Your task to perform on an android device: turn off airplane mode Image 0: 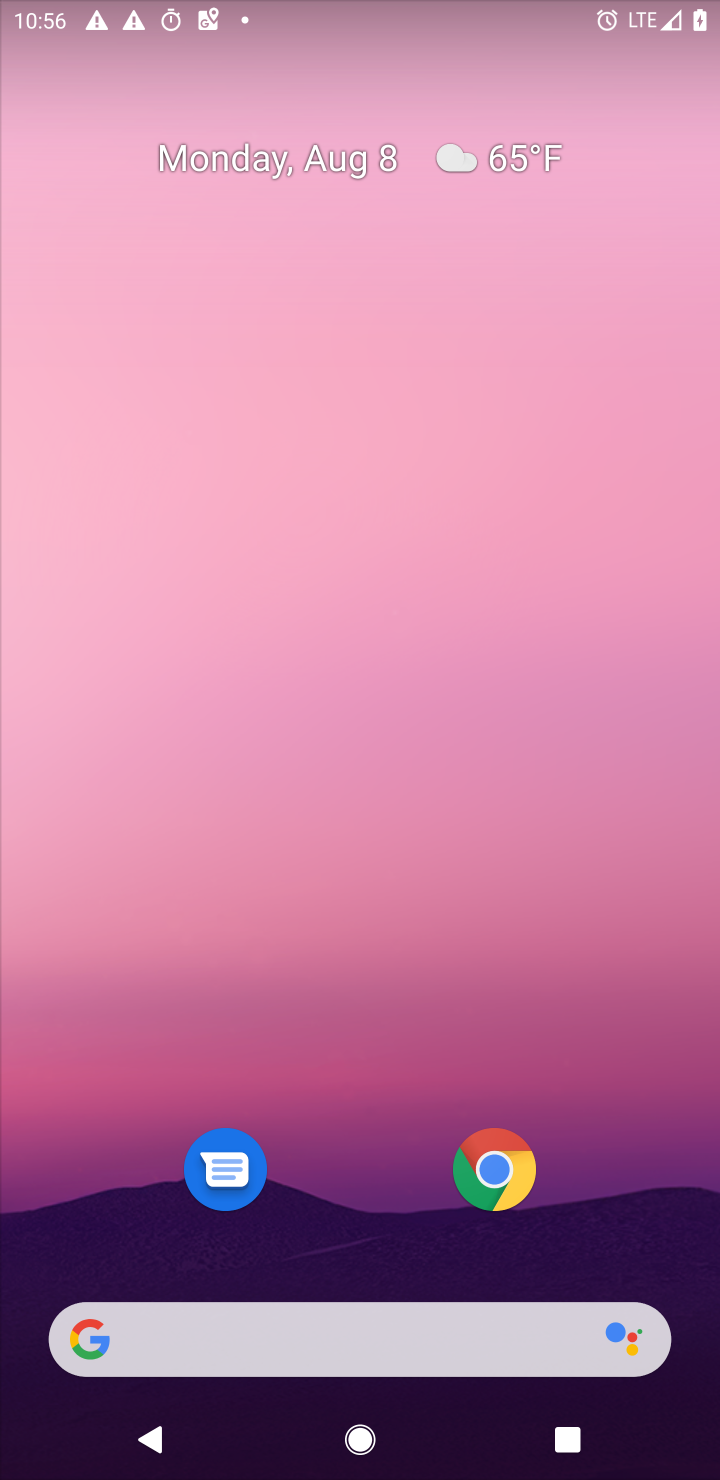
Step 0: drag from (668, 7) to (596, 1149)
Your task to perform on an android device: turn off airplane mode Image 1: 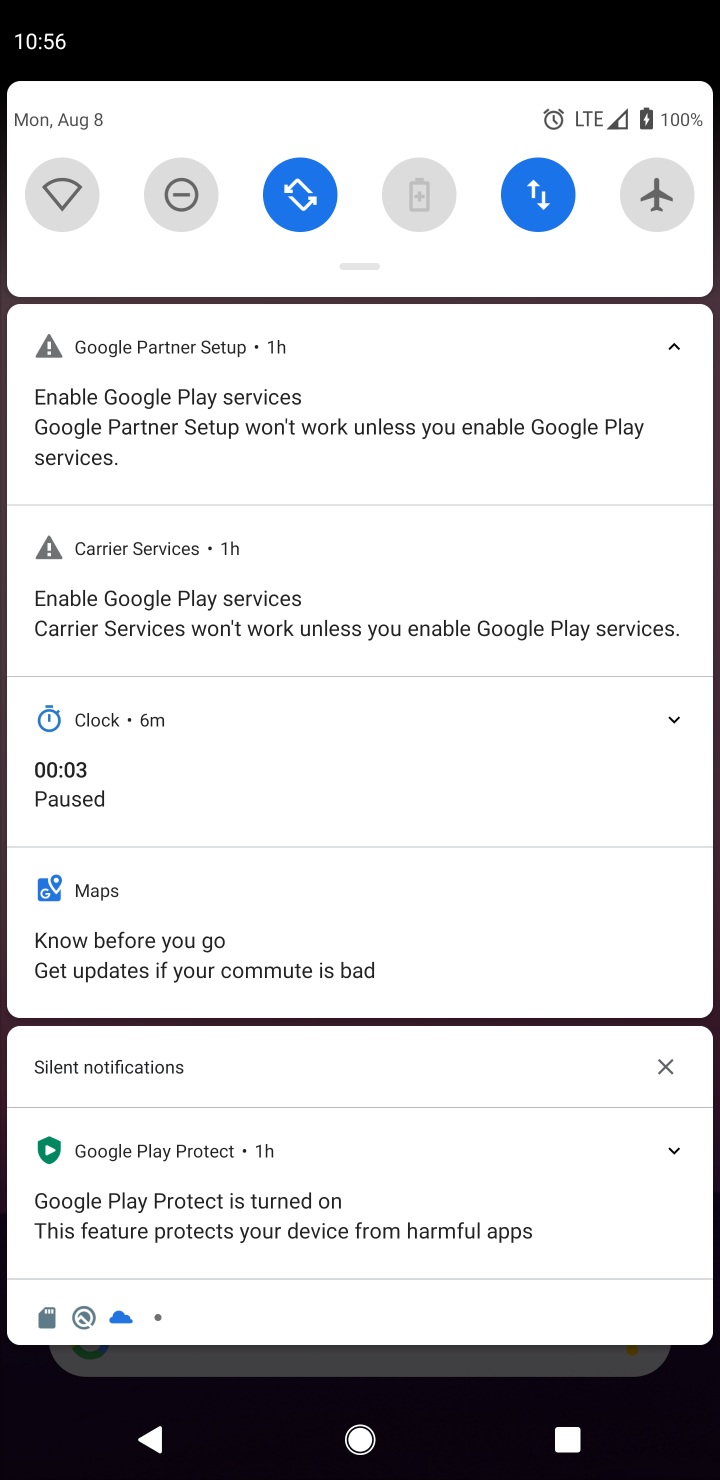
Step 1: task complete